Your task to perform on an android device: empty trash in the gmail app Image 0: 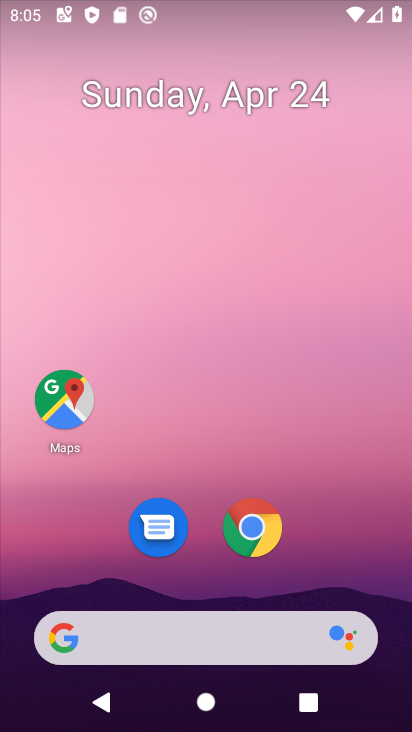
Step 0: drag from (371, 538) to (290, 100)
Your task to perform on an android device: empty trash in the gmail app Image 1: 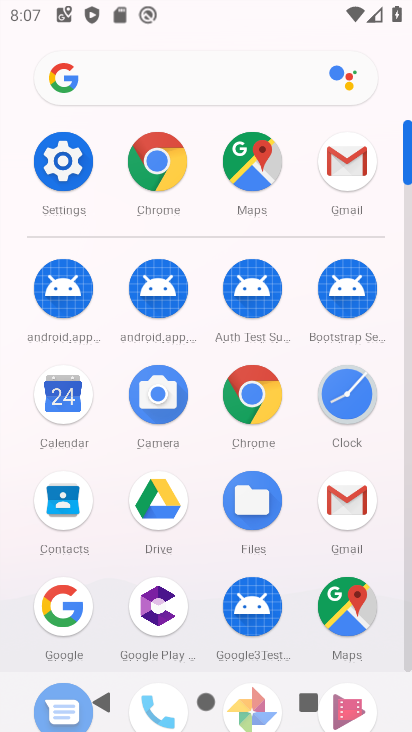
Step 1: click (351, 506)
Your task to perform on an android device: empty trash in the gmail app Image 2: 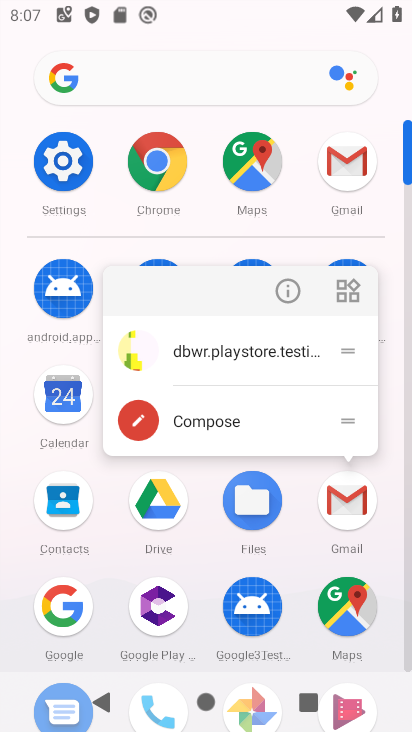
Step 2: click (349, 510)
Your task to perform on an android device: empty trash in the gmail app Image 3: 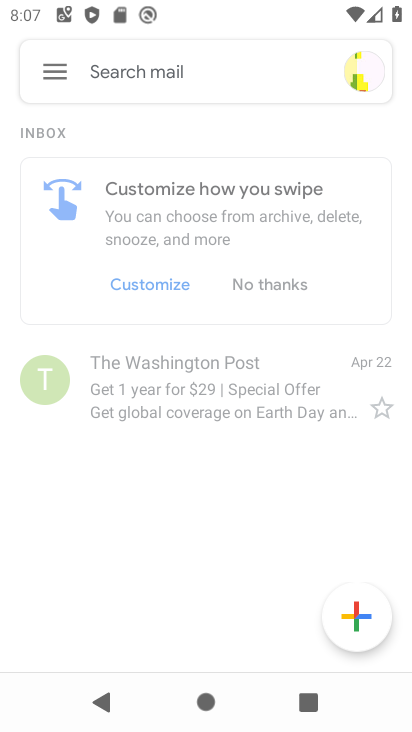
Step 3: click (54, 76)
Your task to perform on an android device: empty trash in the gmail app Image 4: 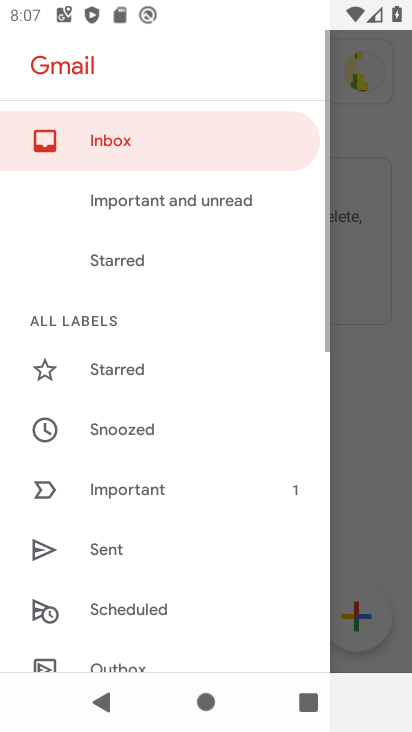
Step 4: drag from (175, 601) to (202, 172)
Your task to perform on an android device: empty trash in the gmail app Image 5: 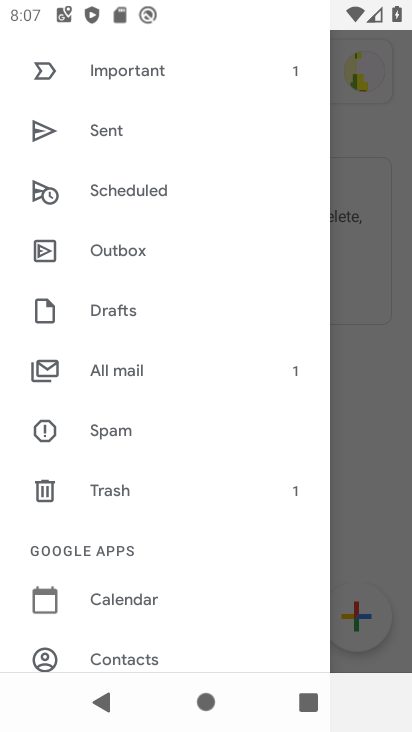
Step 5: click (110, 489)
Your task to perform on an android device: empty trash in the gmail app Image 6: 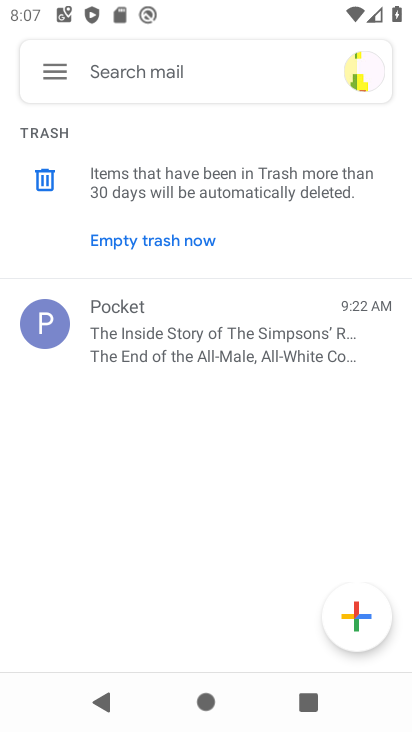
Step 6: click (165, 177)
Your task to perform on an android device: empty trash in the gmail app Image 7: 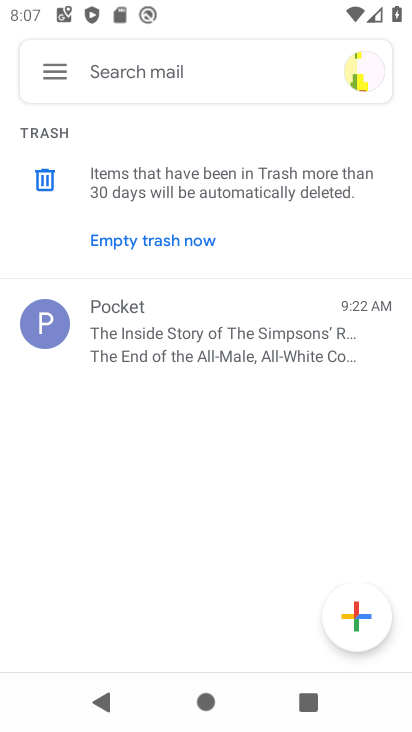
Step 7: click (147, 242)
Your task to perform on an android device: empty trash in the gmail app Image 8: 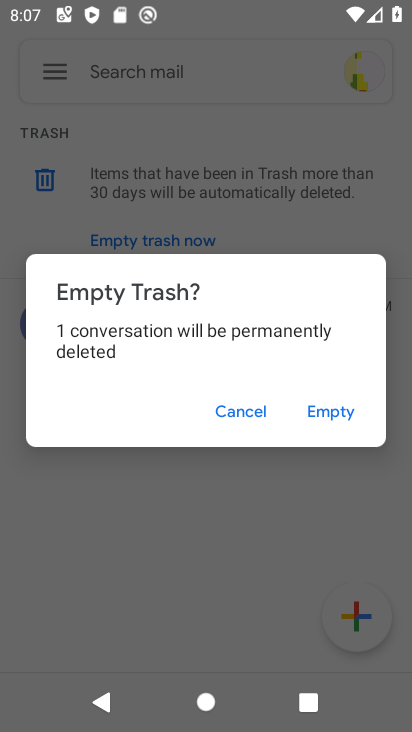
Step 8: click (347, 409)
Your task to perform on an android device: empty trash in the gmail app Image 9: 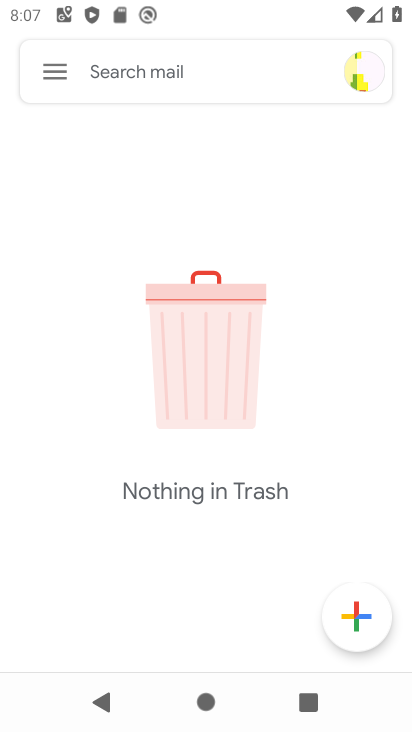
Step 9: task complete